Your task to perform on an android device: Open Yahoo.com Image 0: 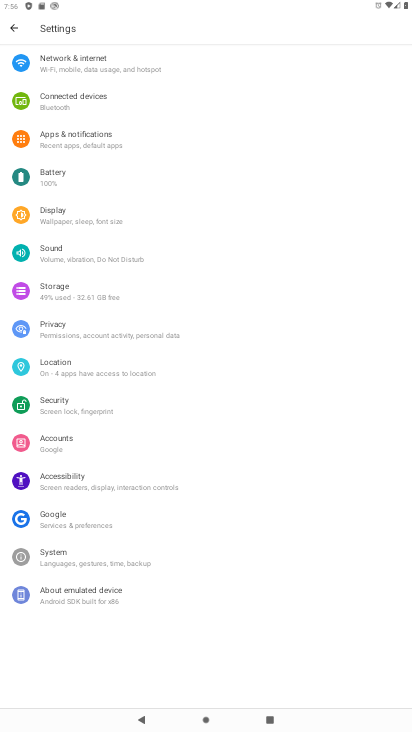
Step 0: press home button
Your task to perform on an android device: Open Yahoo.com Image 1: 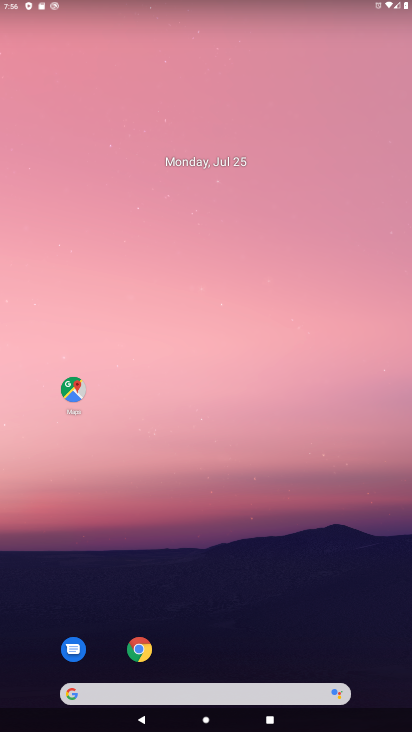
Step 1: click (141, 651)
Your task to perform on an android device: Open Yahoo.com Image 2: 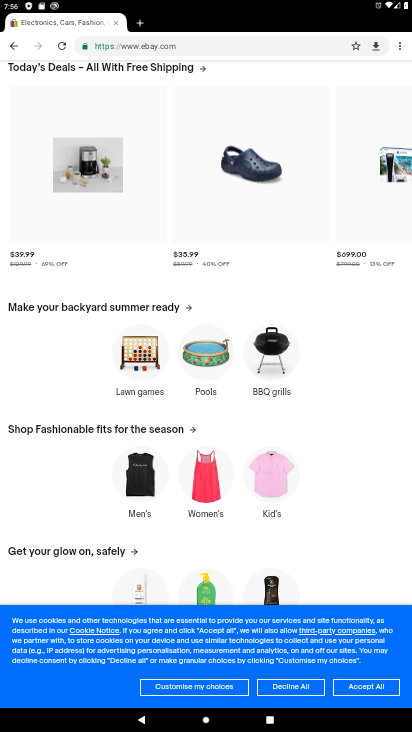
Step 2: click (198, 41)
Your task to perform on an android device: Open Yahoo.com Image 3: 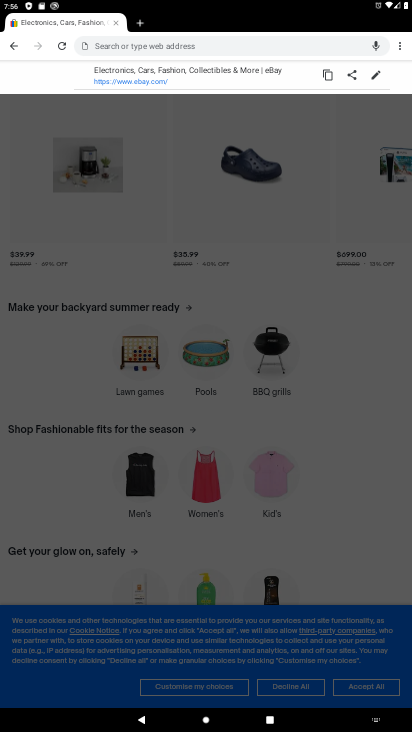
Step 3: type "yahoo.com"
Your task to perform on an android device: Open Yahoo.com Image 4: 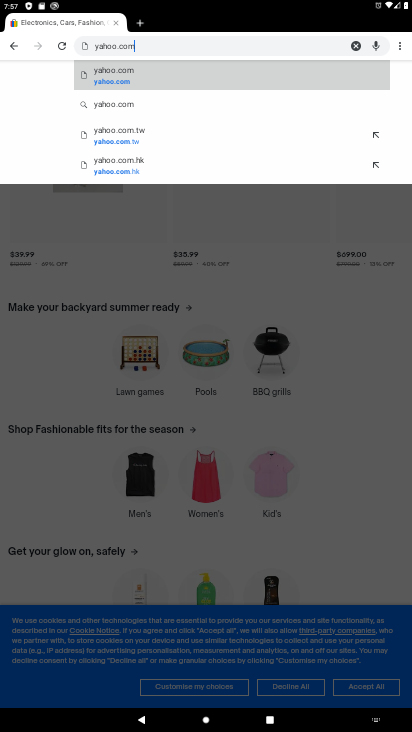
Step 4: click (111, 63)
Your task to perform on an android device: Open Yahoo.com Image 5: 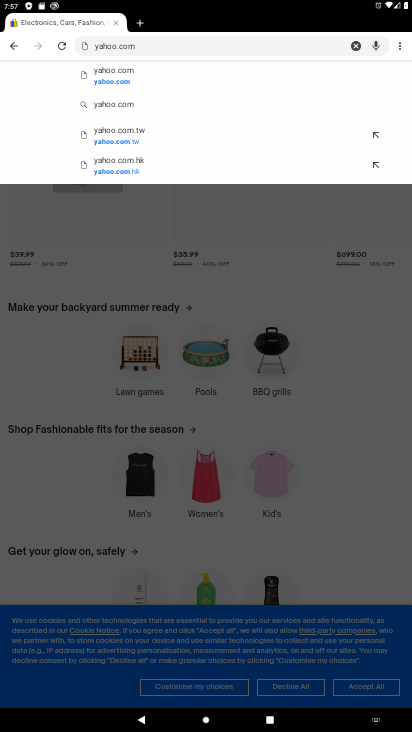
Step 5: click (112, 70)
Your task to perform on an android device: Open Yahoo.com Image 6: 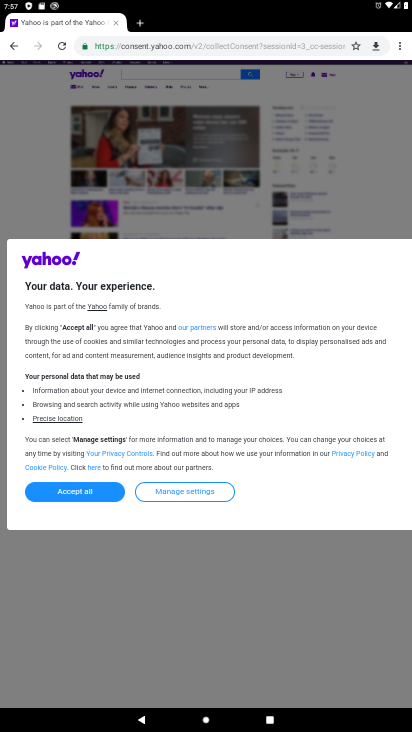
Step 6: click (75, 486)
Your task to perform on an android device: Open Yahoo.com Image 7: 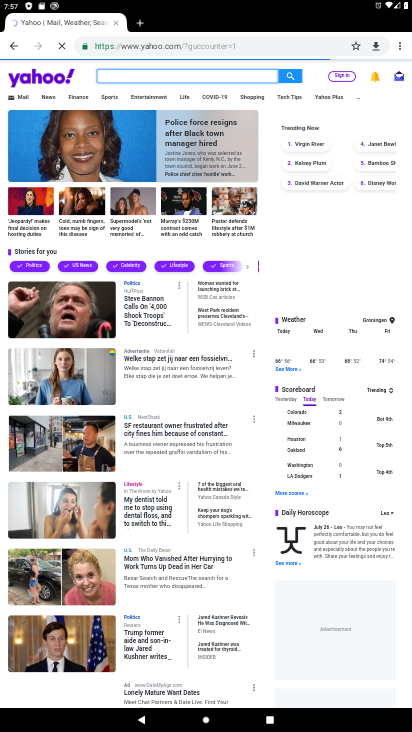
Step 7: task complete